Your task to perform on an android device: turn off priority inbox in the gmail app Image 0: 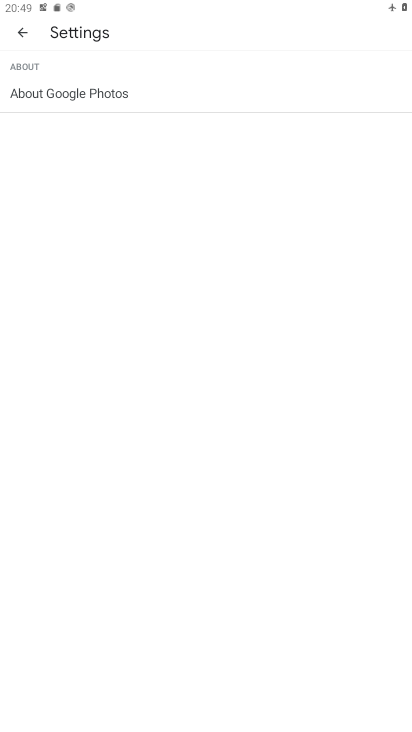
Step 0: click (37, 30)
Your task to perform on an android device: turn off priority inbox in the gmail app Image 1: 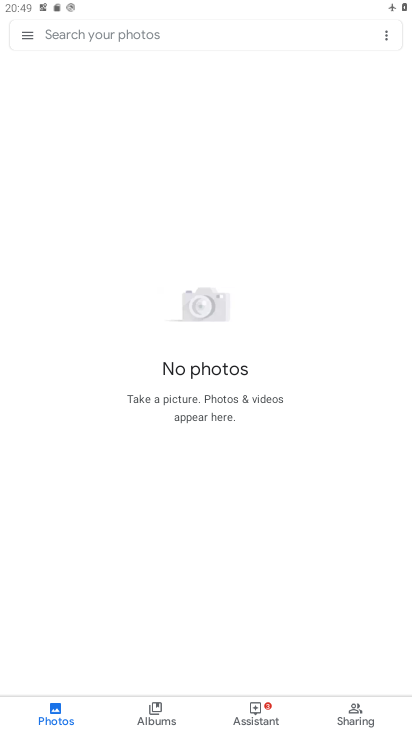
Step 1: press back button
Your task to perform on an android device: turn off priority inbox in the gmail app Image 2: 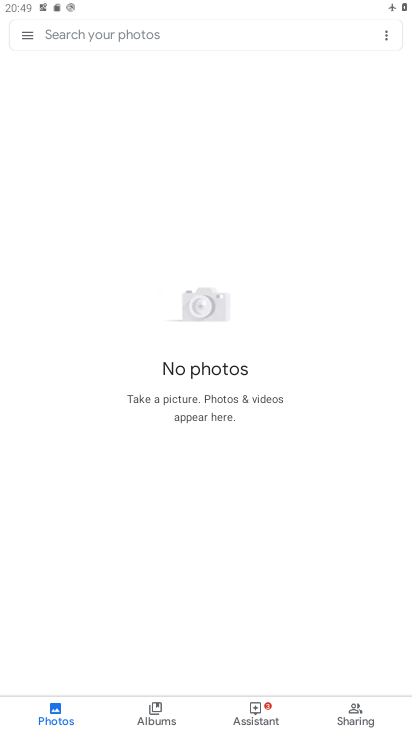
Step 2: press back button
Your task to perform on an android device: turn off priority inbox in the gmail app Image 3: 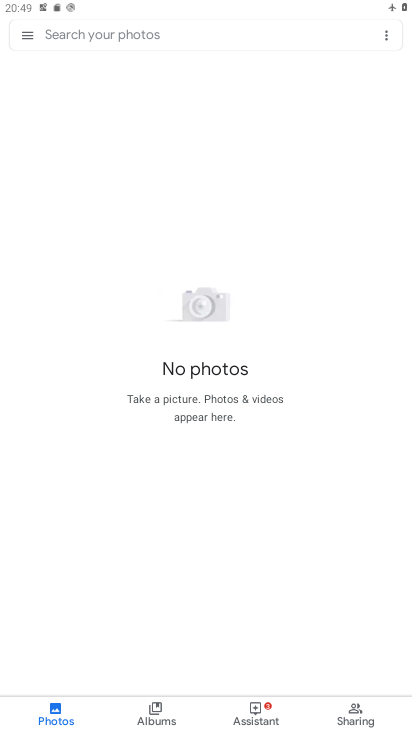
Step 3: press home button
Your task to perform on an android device: turn off priority inbox in the gmail app Image 4: 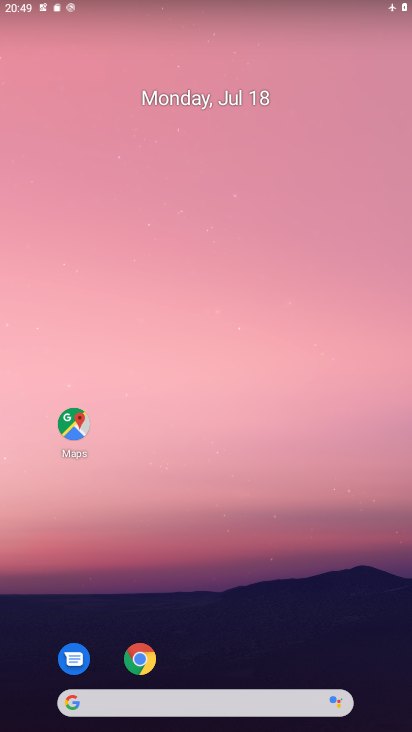
Step 4: drag from (206, 263) to (193, 184)
Your task to perform on an android device: turn off priority inbox in the gmail app Image 5: 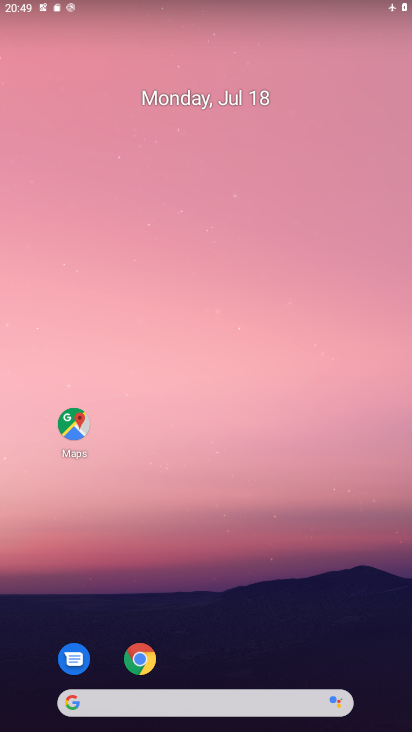
Step 5: drag from (226, 485) to (199, 195)
Your task to perform on an android device: turn off priority inbox in the gmail app Image 6: 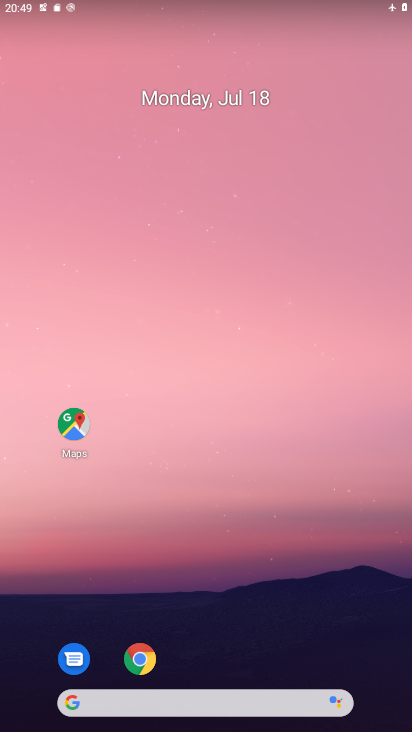
Step 6: drag from (212, 579) to (175, 111)
Your task to perform on an android device: turn off priority inbox in the gmail app Image 7: 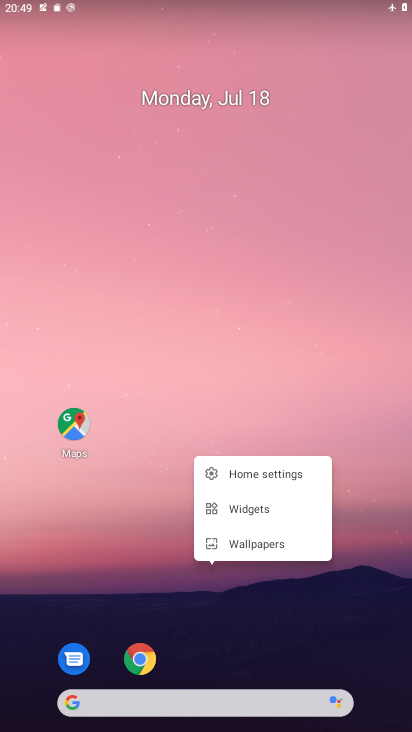
Step 7: drag from (215, 593) to (173, 31)
Your task to perform on an android device: turn off priority inbox in the gmail app Image 8: 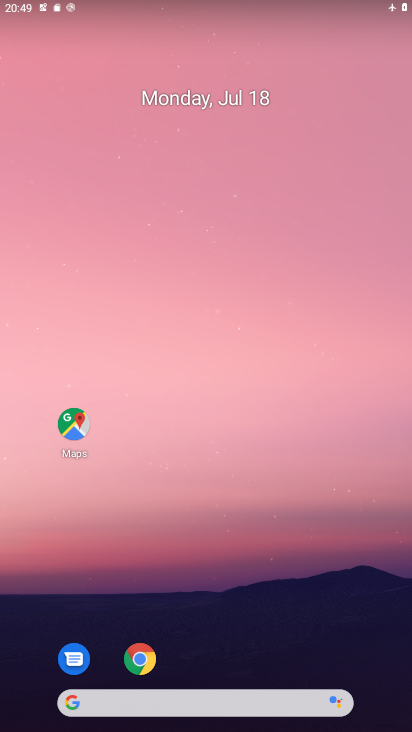
Step 8: drag from (175, 522) to (142, 60)
Your task to perform on an android device: turn off priority inbox in the gmail app Image 9: 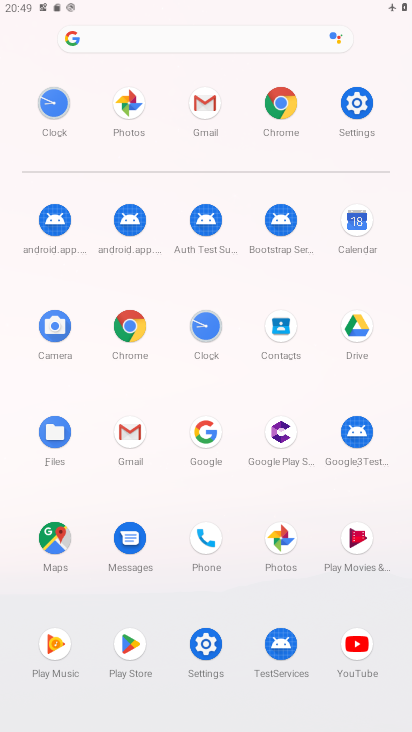
Step 9: click (121, 424)
Your task to perform on an android device: turn off priority inbox in the gmail app Image 10: 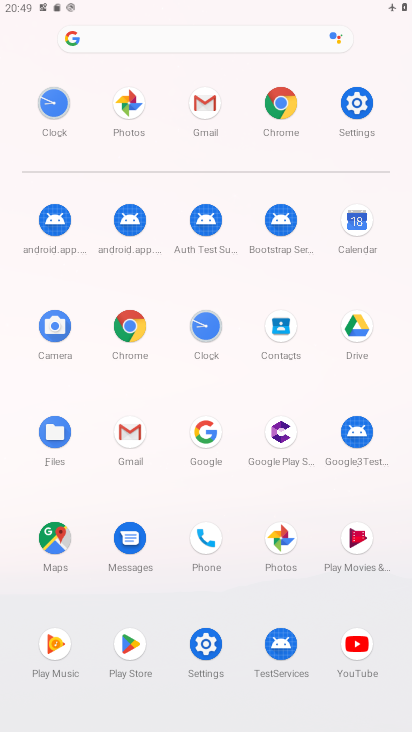
Step 10: click (122, 422)
Your task to perform on an android device: turn off priority inbox in the gmail app Image 11: 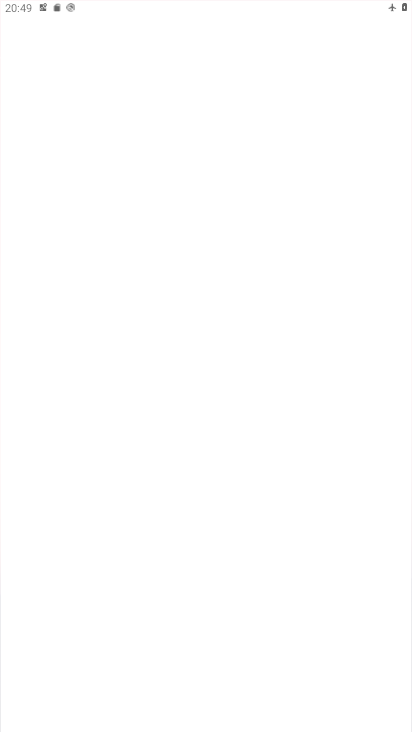
Step 11: click (122, 422)
Your task to perform on an android device: turn off priority inbox in the gmail app Image 12: 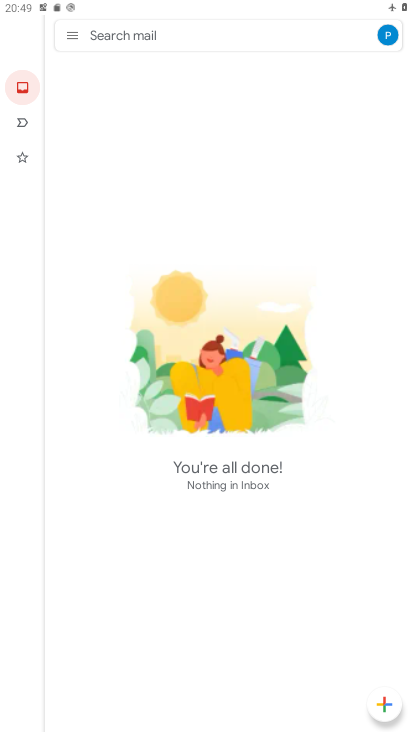
Step 12: drag from (66, 36) to (94, 382)
Your task to perform on an android device: turn off priority inbox in the gmail app Image 13: 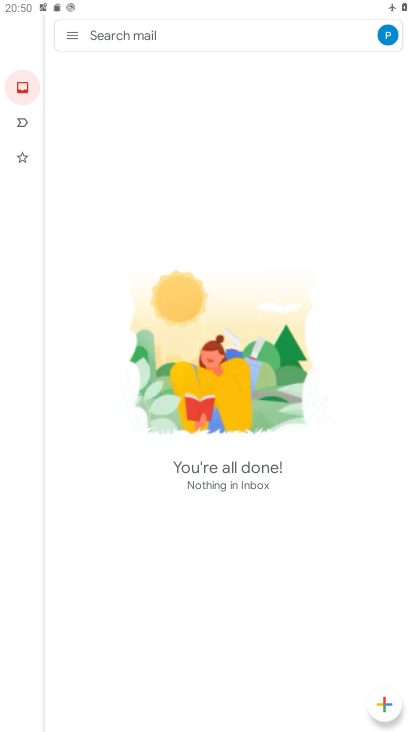
Step 13: drag from (78, 45) to (95, 326)
Your task to perform on an android device: turn off priority inbox in the gmail app Image 14: 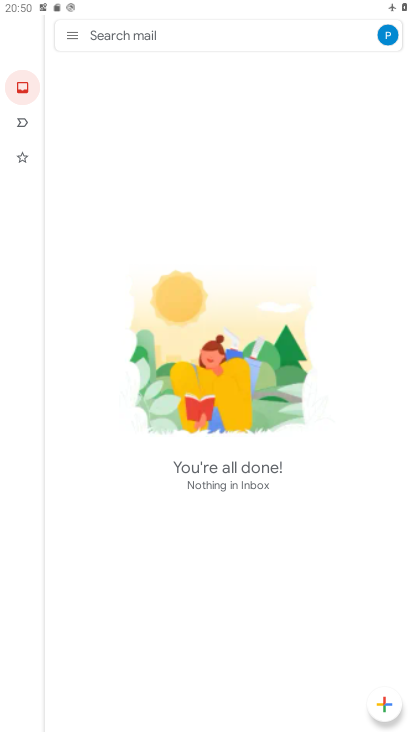
Step 14: drag from (69, 36) to (99, 236)
Your task to perform on an android device: turn off priority inbox in the gmail app Image 15: 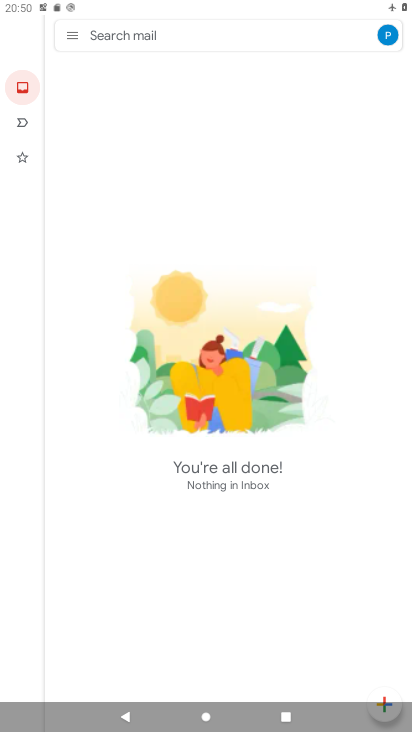
Step 15: drag from (74, 41) to (98, 218)
Your task to perform on an android device: turn off priority inbox in the gmail app Image 16: 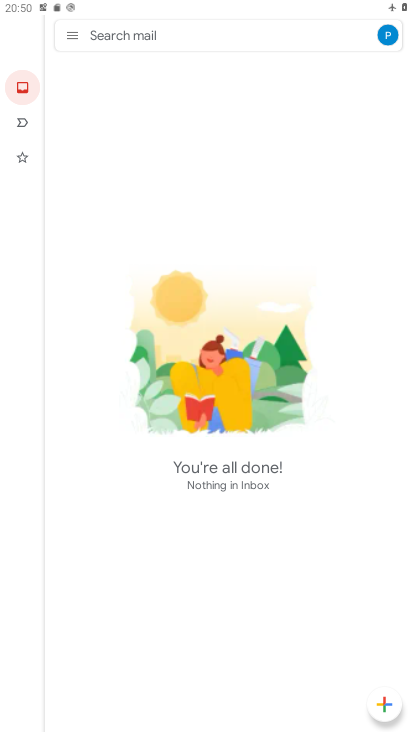
Step 16: click (64, 44)
Your task to perform on an android device: turn off priority inbox in the gmail app Image 17: 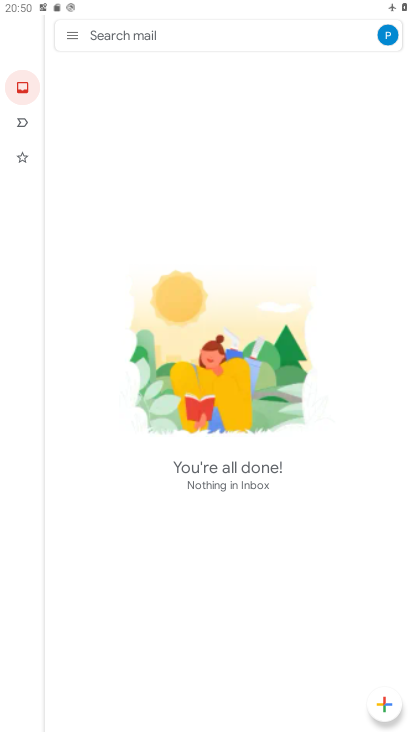
Step 17: click (64, 44)
Your task to perform on an android device: turn off priority inbox in the gmail app Image 18: 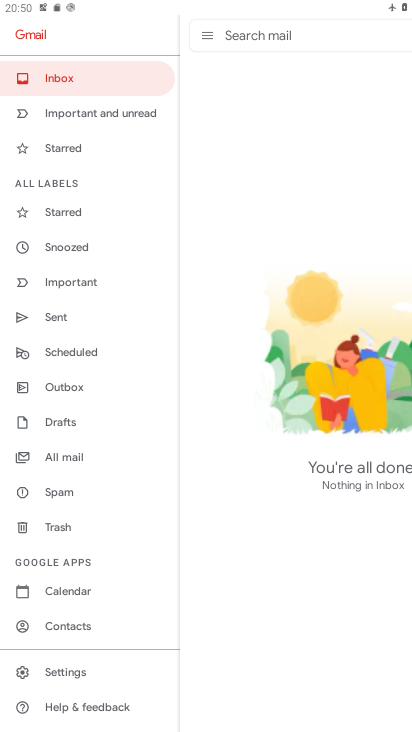
Step 18: click (65, 43)
Your task to perform on an android device: turn off priority inbox in the gmail app Image 19: 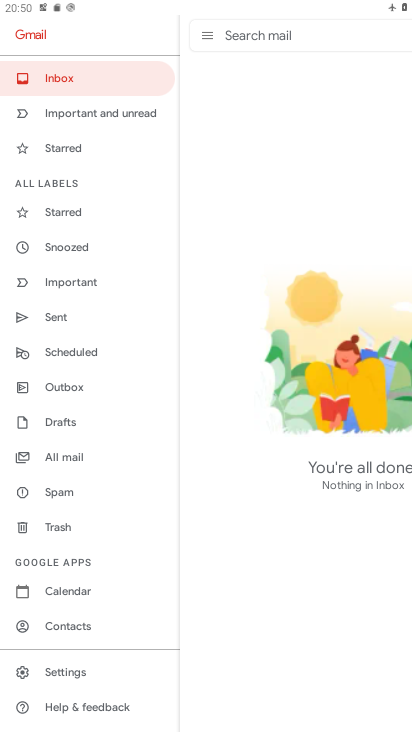
Step 19: click (67, 43)
Your task to perform on an android device: turn off priority inbox in the gmail app Image 20: 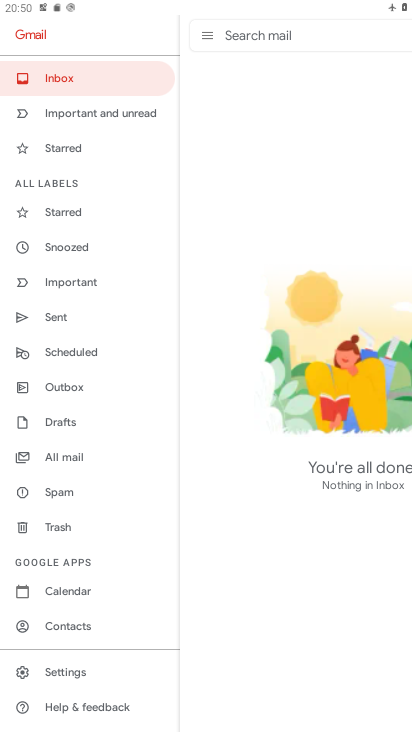
Step 20: click (62, 671)
Your task to perform on an android device: turn off priority inbox in the gmail app Image 21: 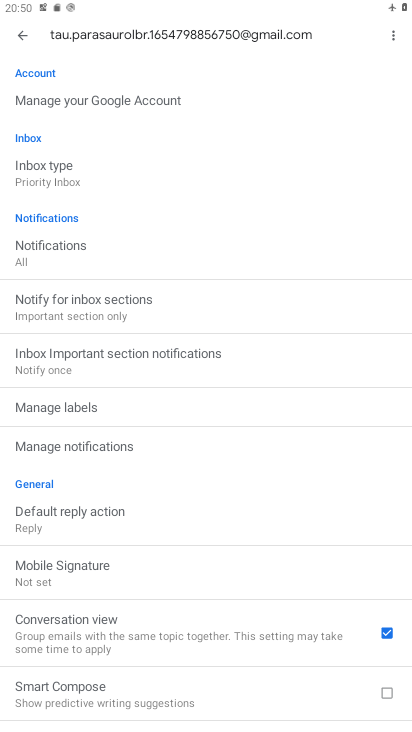
Step 21: task complete